Your task to perform on an android device: Go to calendar. Show me events next week Image 0: 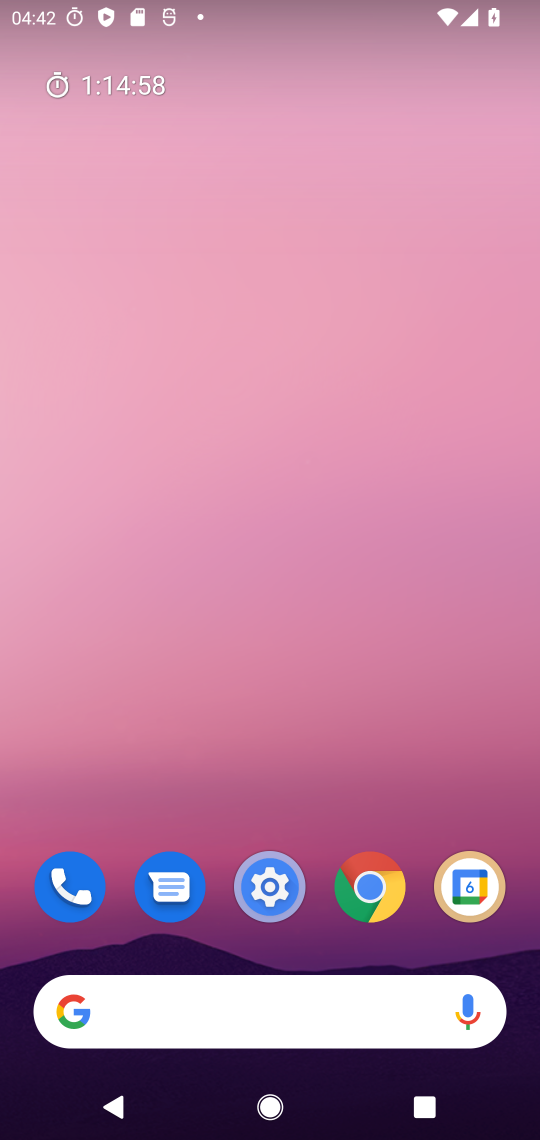
Step 0: press home button
Your task to perform on an android device: Go to calendar. Show me events next week Image 1: 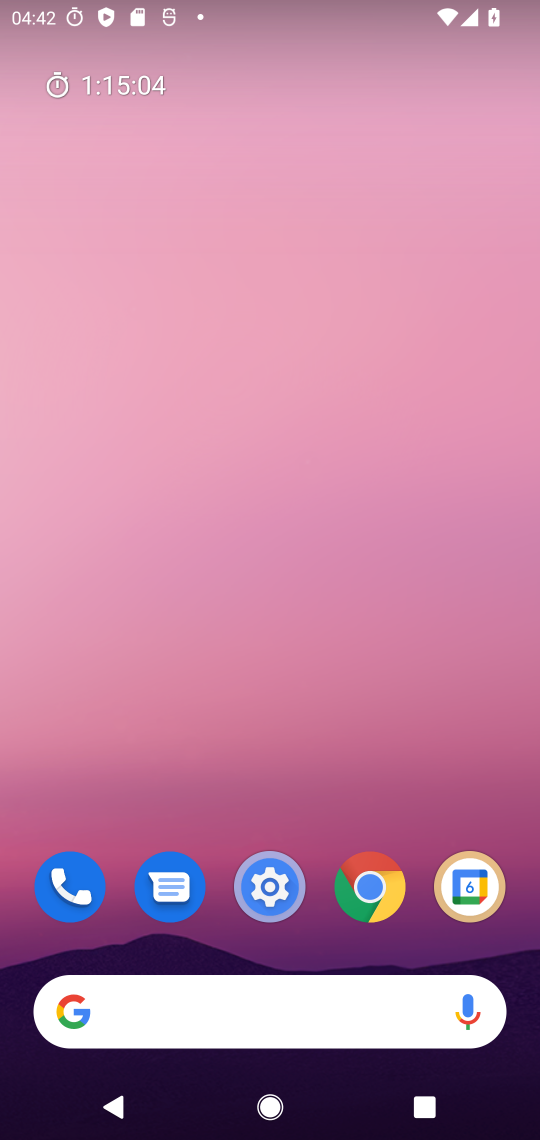
Step 1: drag from (400, 707) to (434, 367)
Your task to perform on an android device: Go to calendar. Show me events next week Image 2: 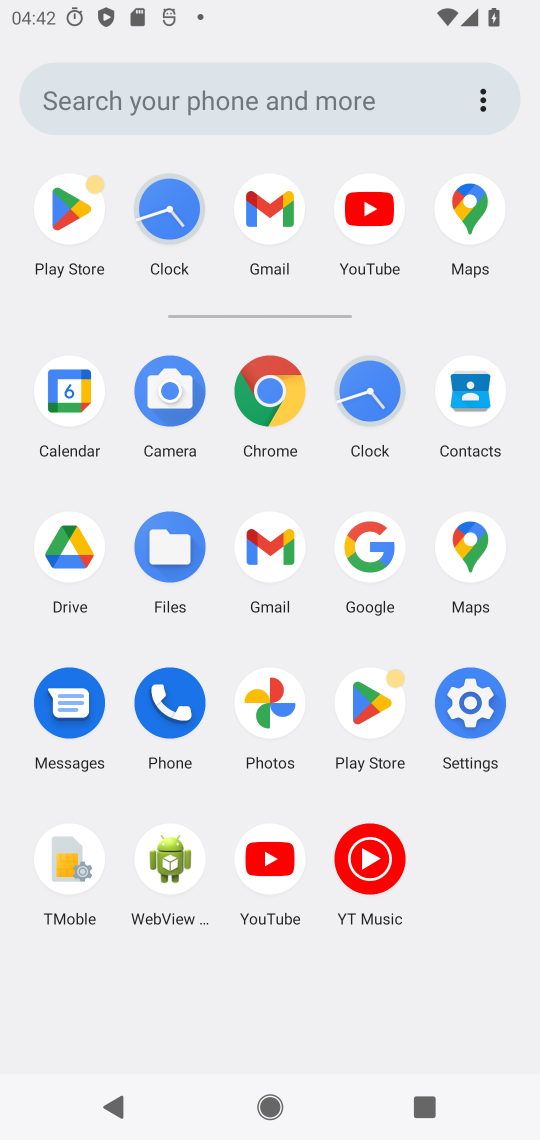
Step 2: click (73, 387)
Your task to perform on an android device: Go to calendar. Show me events next week Image 3: 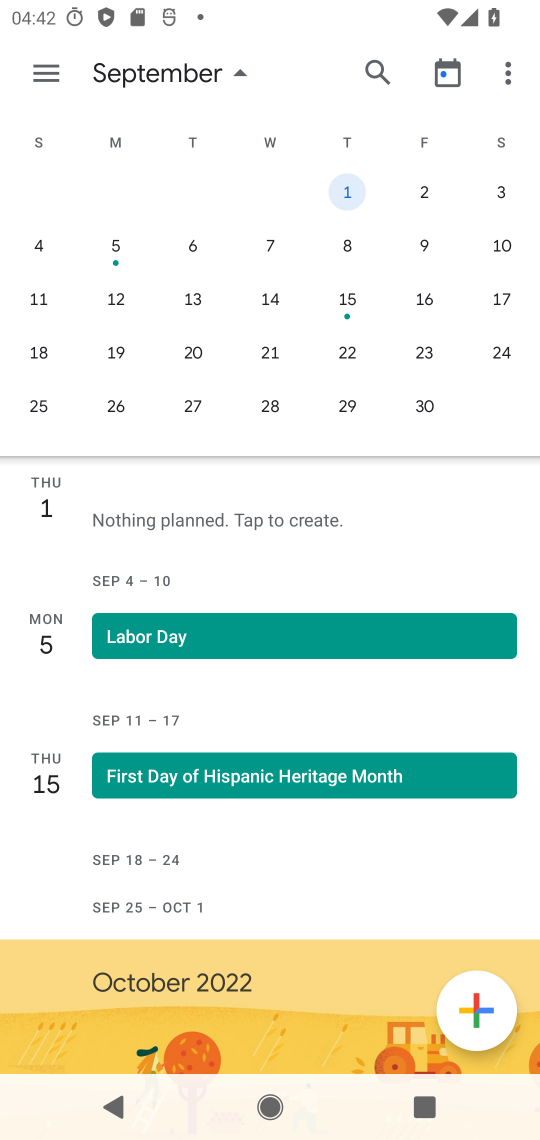
Step 3: drag from (255, 623) to (264, 252)
Your task to perform on an android device: Go to calendar. Show me events next week Image 4: 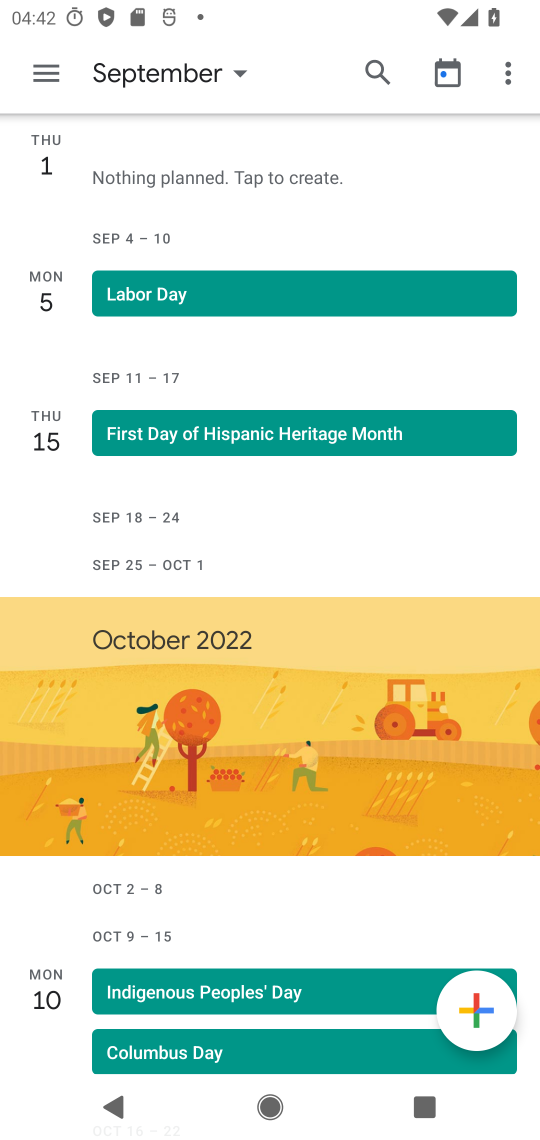
Step 4: drag from (256, 172) to (303, 444)
Your task to perform on an android device: Go to calendar. Show me events next week Image 5: 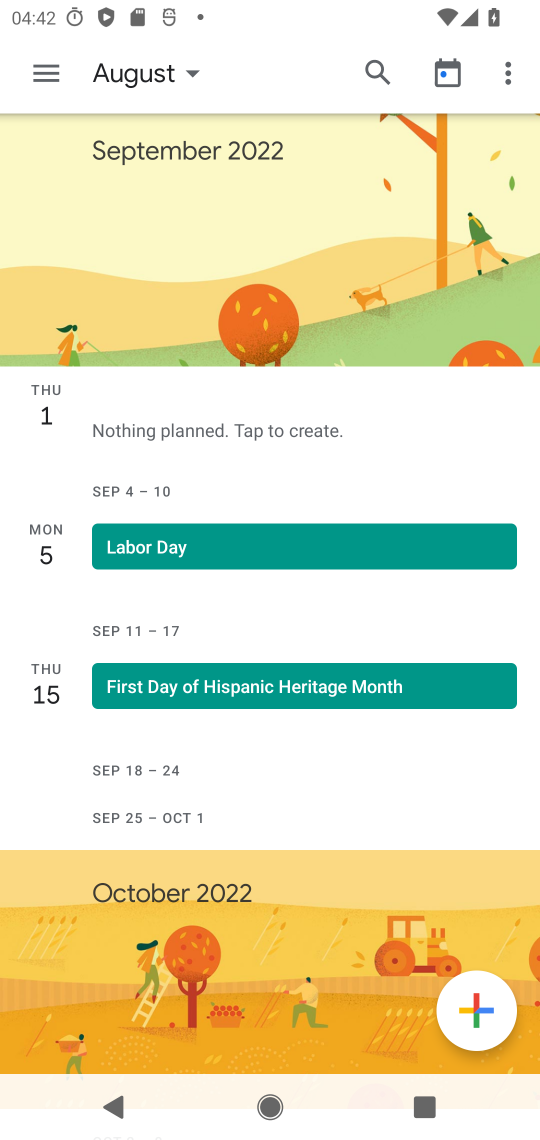
Step 5: drag from (268, 189) to (278, 391)
Your task to perform on an android device: Go to calendar. Show me events next week Image 6: 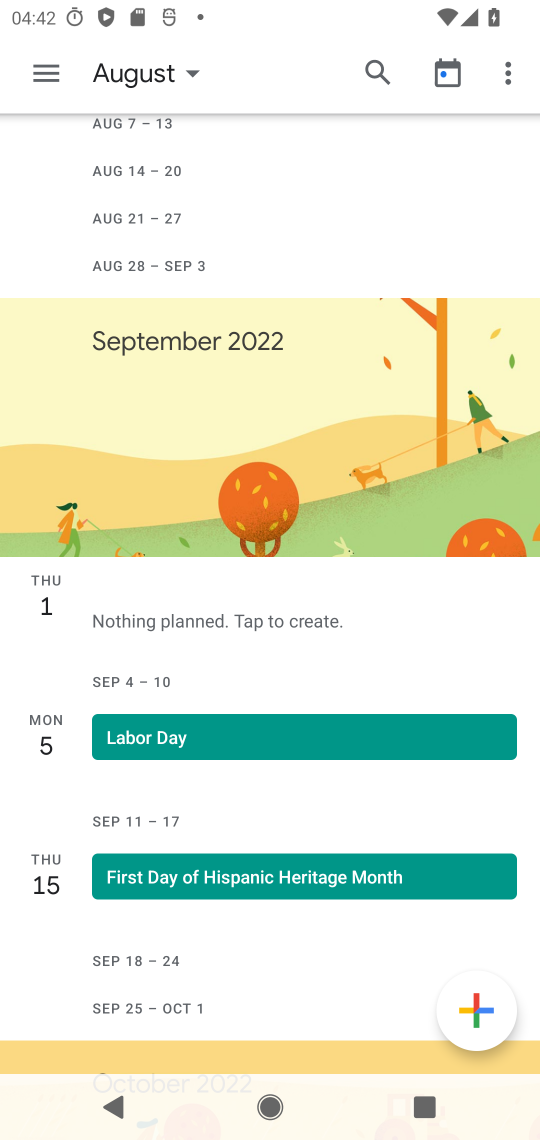
Step 6: drag from (260, 148) to (270, 376)
Your task to perform on an android device: Go to calendar. Show me events next week Image 7: 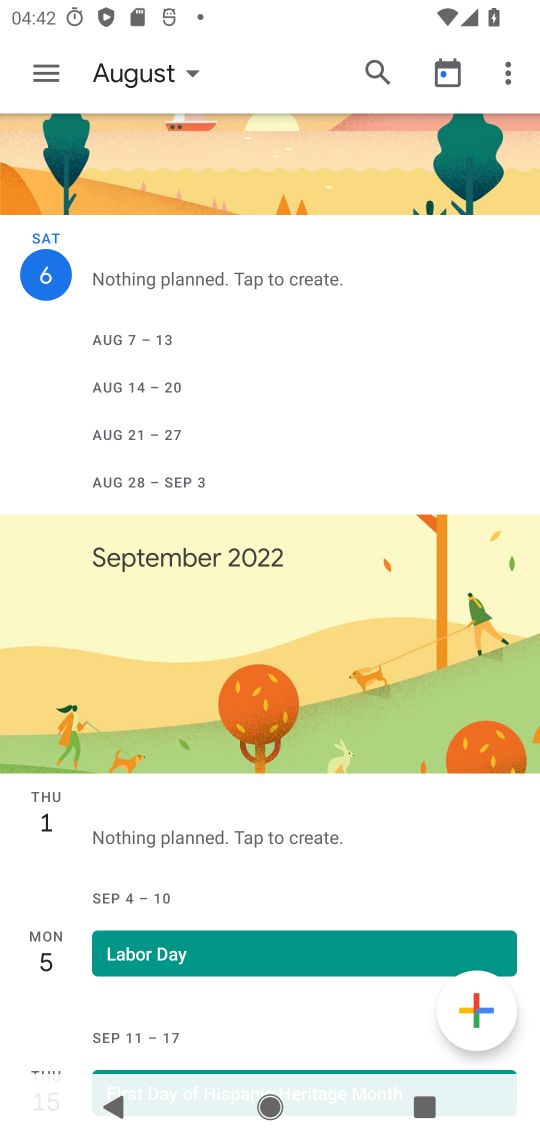
Step 7: click (192, 66)
Your task to perform on an android device: Go to calendar. Show me events next week Image 8: 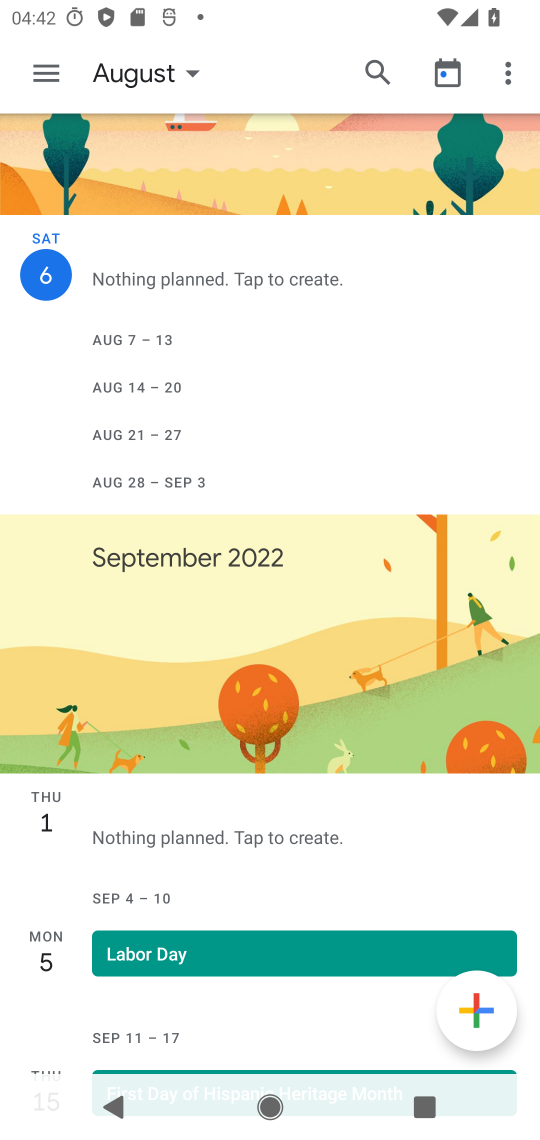
Step 8: click (182, 72)
Your task to perform on an android device: Go to calendar. Show me events next week Image 9: 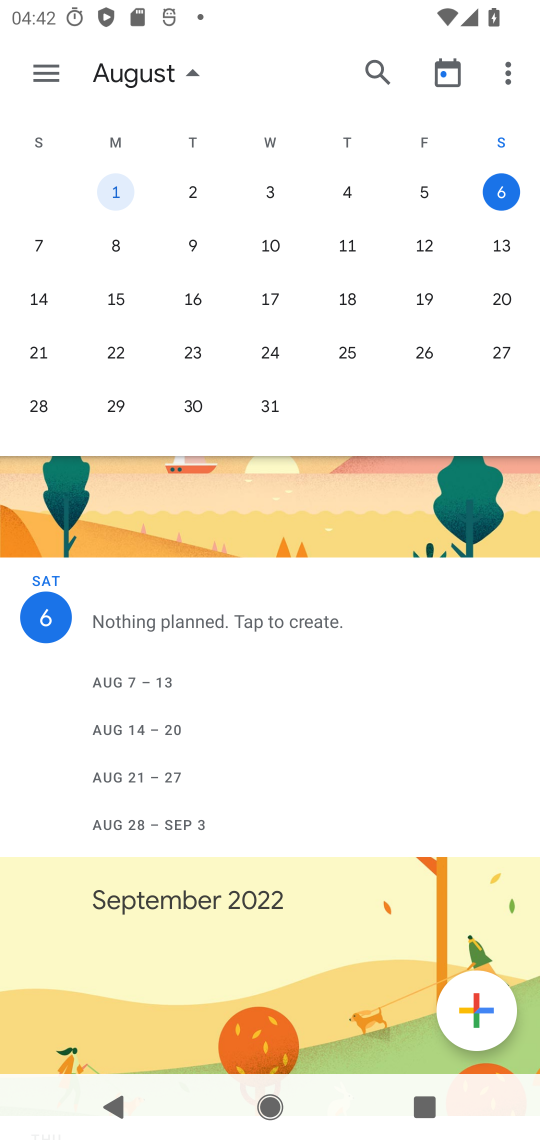
Step 9: click (115, 251)
Your task to perform on an android device: Go to calendar. Show me events next week Image 10: 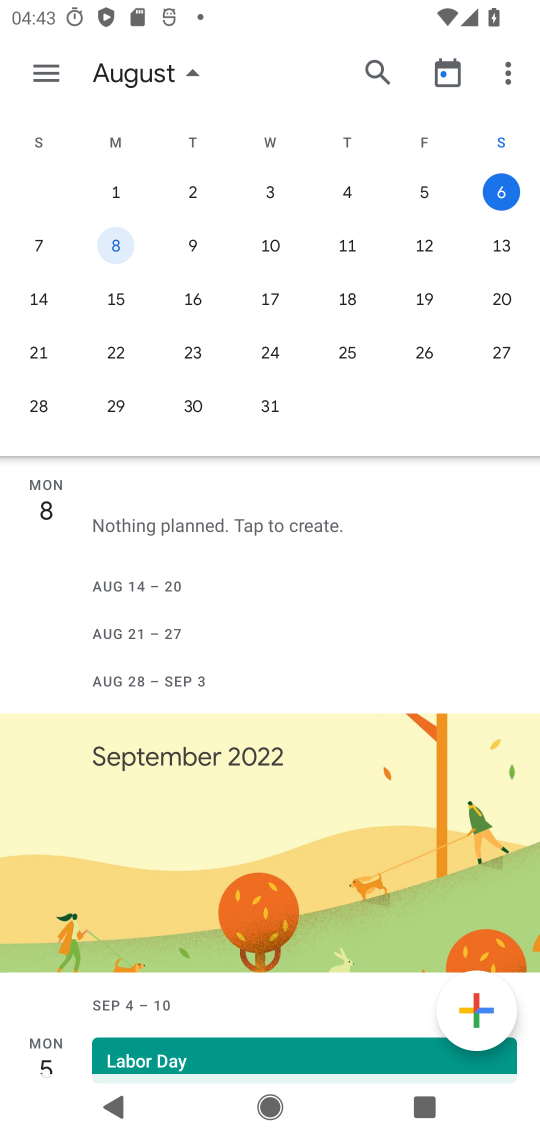
Step 10: task complete